Your task to perform on an android device: change alarm snooze length Image 0: 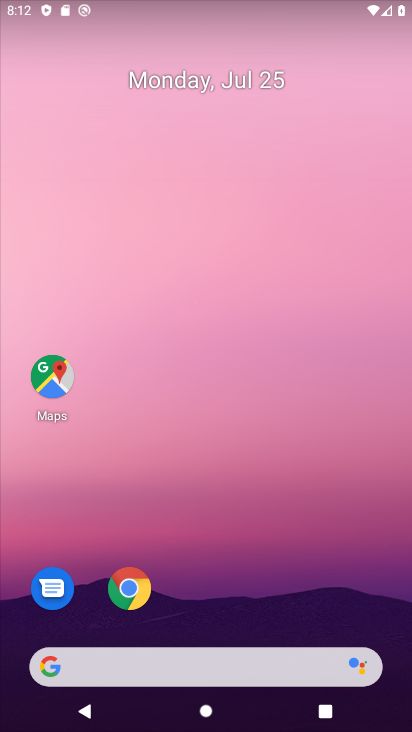
Step 0: drag from (345, 553) to (359, 123)
Your task to perform on an android device: change alarm snooze length Image 1: 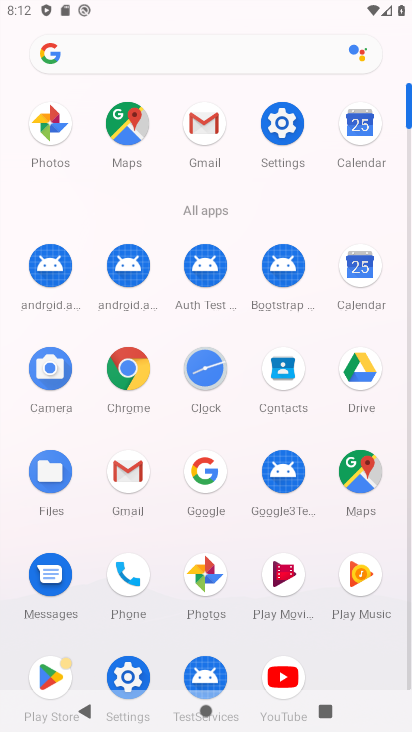
Step 1: click (128, 477)
Your task to perform on an android device: change alarm snooze length Image 2: 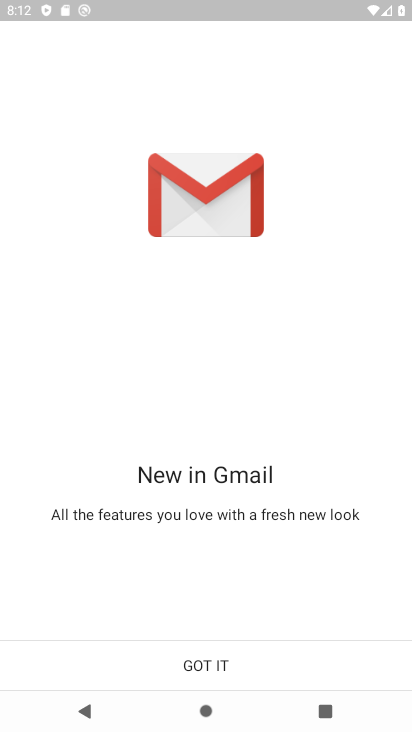
Step 2: press back button
Your task to perform on an android device: change alarm snooze length Image 3: 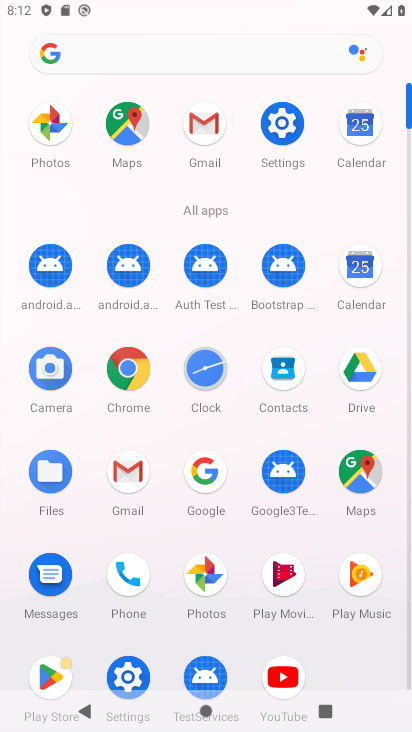
Step 3: click (206, 362)
Your task to perform on an android device: change alarm snooze length Image 4: 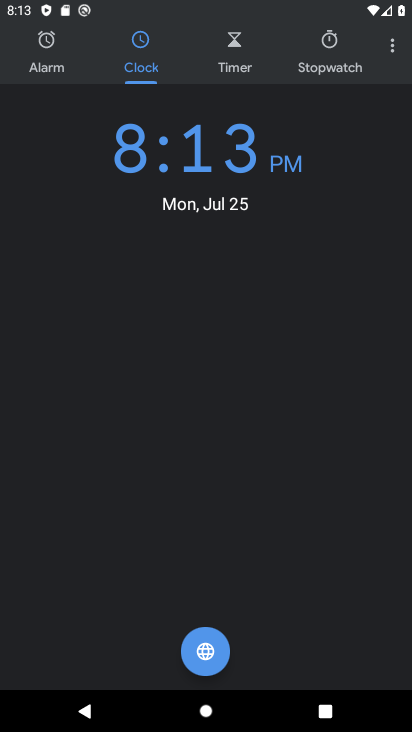
Step 4: click (391, 50)
Your task to perform on an android device: change alarm snooze length Image 5: 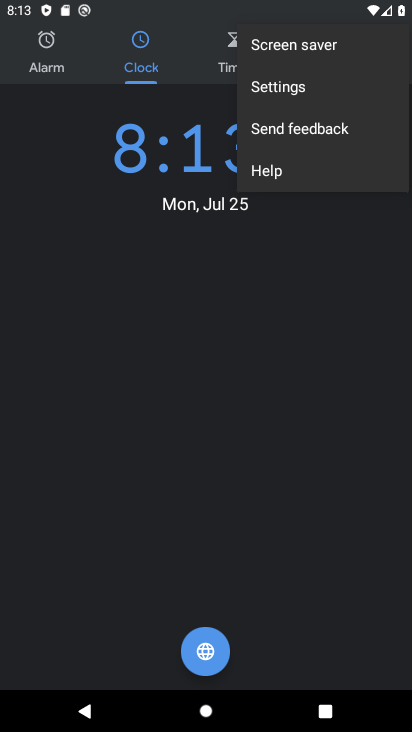
Step 5: click (347, 91)
Your task to perform on an android device: change alarm snooze length Image 6: 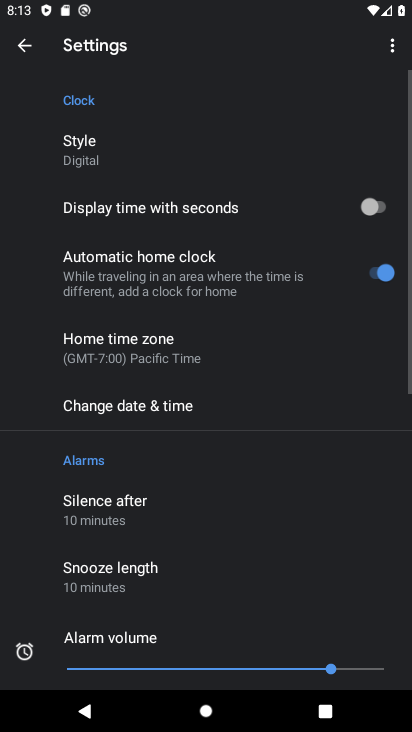
Step 6: drag from (290, 463) to (297, 402)
Your task to perform on an android device: change alarm snooze length Image 7: 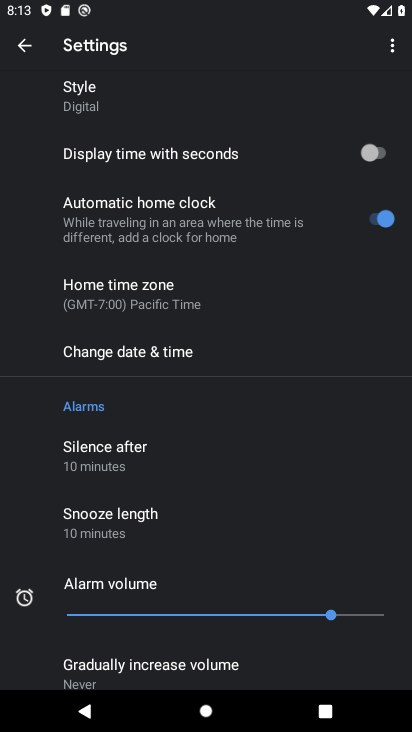
Step 7: drag from (285, 474) to (289, 372)
Your task to perform on an android device: change alarm snooze length Image 8: 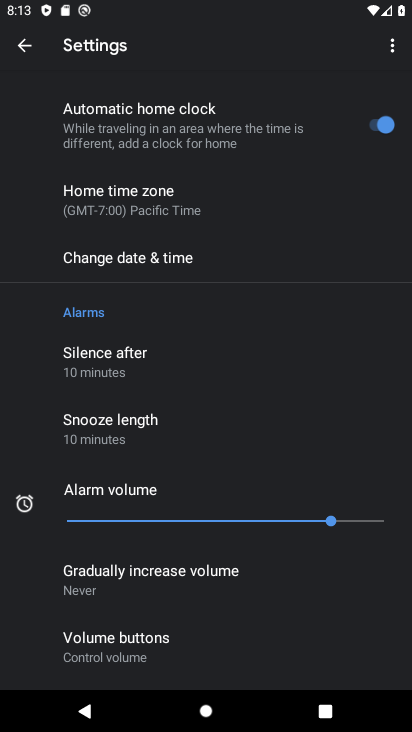
Step 8: drag from (282, 457) to (282, 374)
Your task to perform on an android device: change alarm snooze length Image 9: 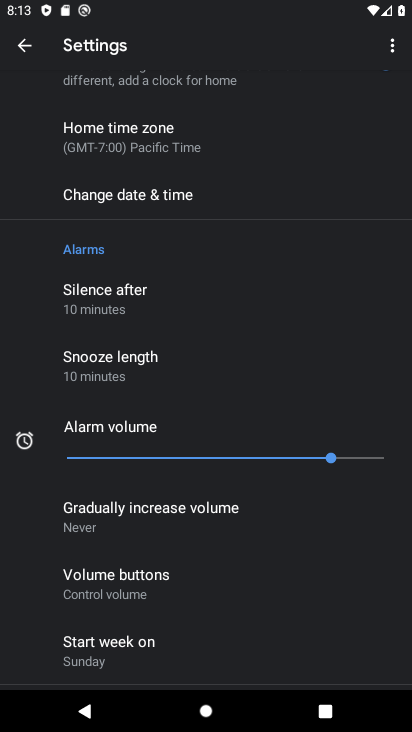
Step 9: drag from (279, 515) to (275, 413)
Your task to perform on an android device: change alarm snooze length Image 10: 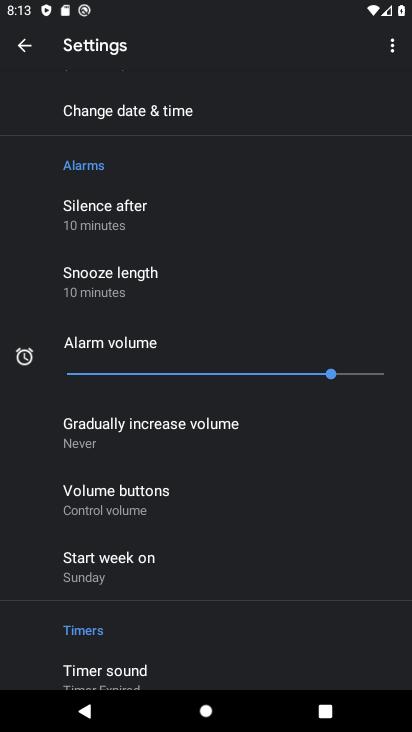
Step 10: drag from (300, 502) to (297, 415)
Your task to perform on an android device: change alarm snooze length Image 11: 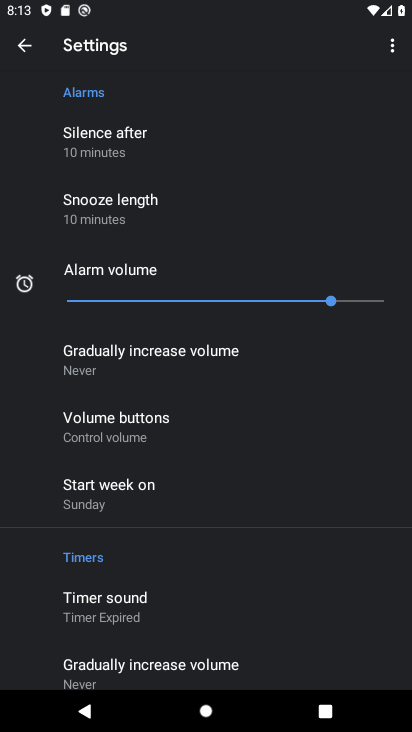
Step 11: drag from (297, 503) to (297, 419)
Your task to perform on an android device: change alarm snooze length Image 12: 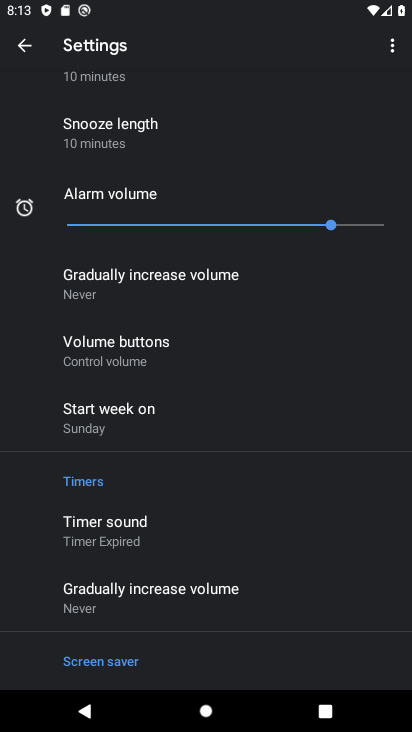
Step 12: drag from (311, 479) to (308, 400)
Your task to perform on an android device: change alarm snooze length Image 13: 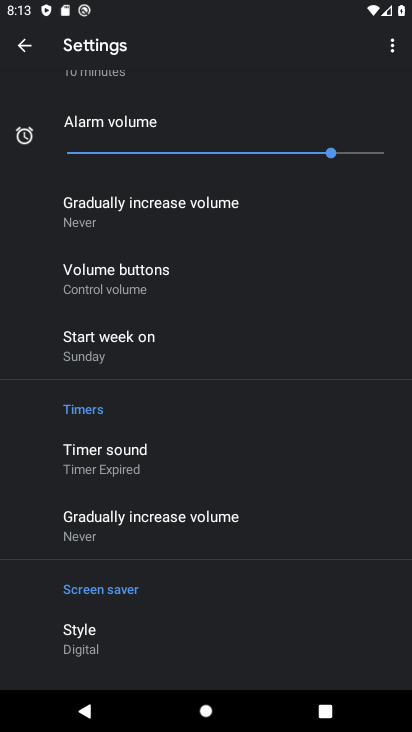
Step 13: drag from (331, 548) to (326, 431)
Your task to perform on an android device: change alarm snooze length Image 14: 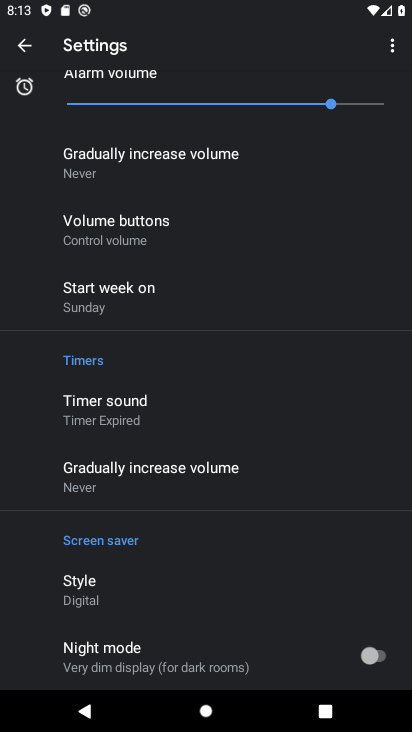
Step 14: drag from (325, 524) to (330, 459)
Your task to perform on an android device: change alarm snooze length Image 15: 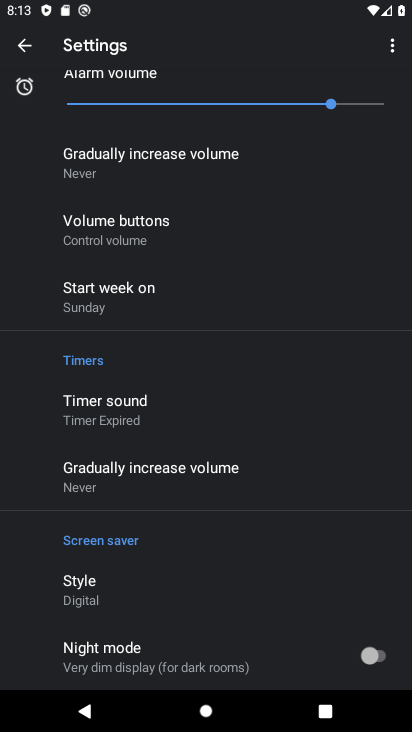
Step 15: drag from (265, 257) to (265, 337)
Your task to perform on an android device: change alarm snooze length Image 16: 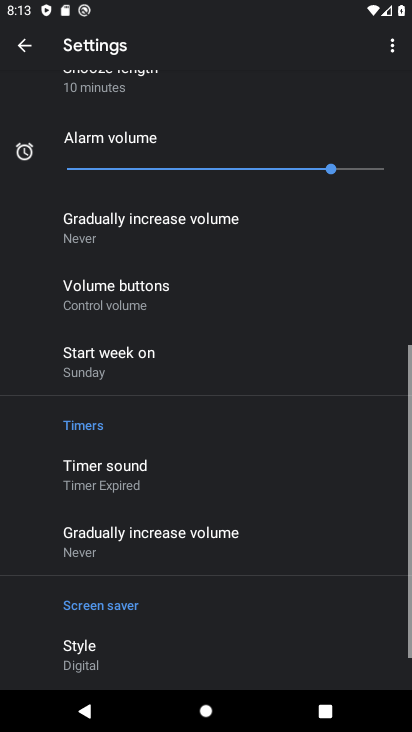
Step 16: drag from (283, 436) to (287, 263)
Your task to perform on an android device: change alarm snooze length Image 17: 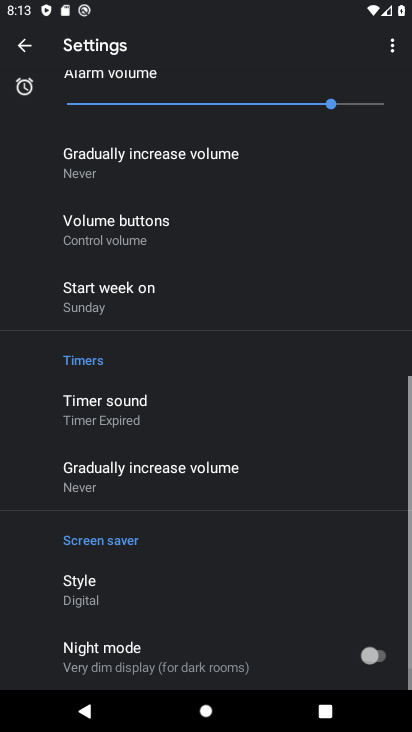
Step 17: drag from (287, 261) to (287, 355)
Your task to perform on an android device: change alarm snooze length Image 18: 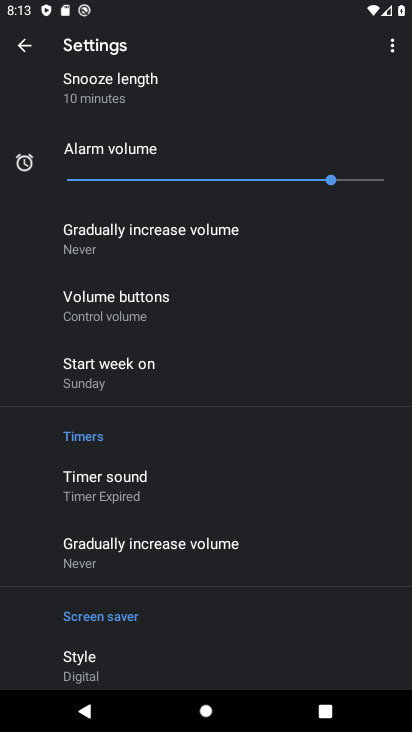
Step 18: drag from (284, 234) to (287, 357)
Your task to perform on an android device: change alarm snooze length Image 19: 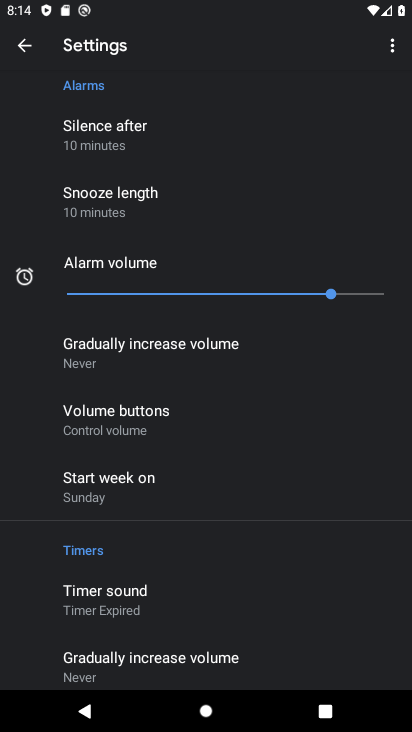
Step 19: drag from (248, 204) to (251, 338)
Your task to perform on an android device: change alarm snooze length Image 20: 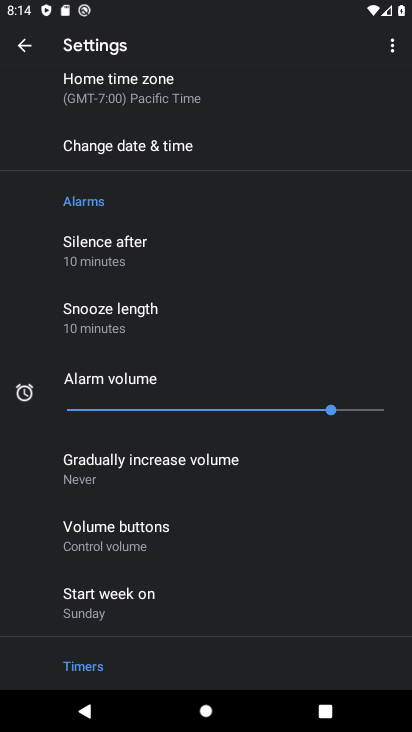
Step 20: drag from (252, 218) to (255, 320)
Your task to perform on an android device: change alarm snooze length Image 21: 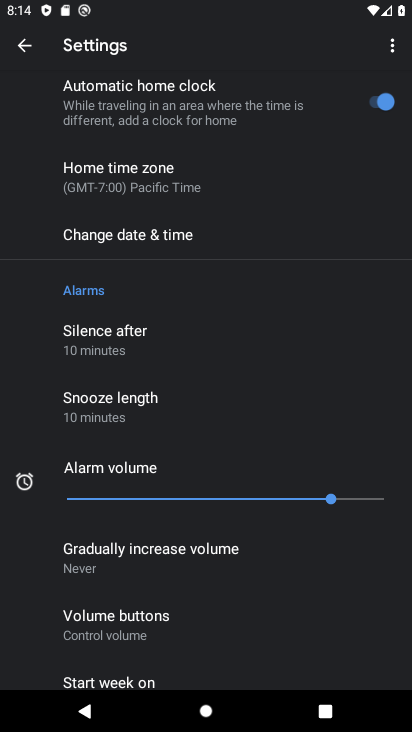
Step 21: click (214, 405)
Your task to perform on an android device: change alarm snooze length Image 22: 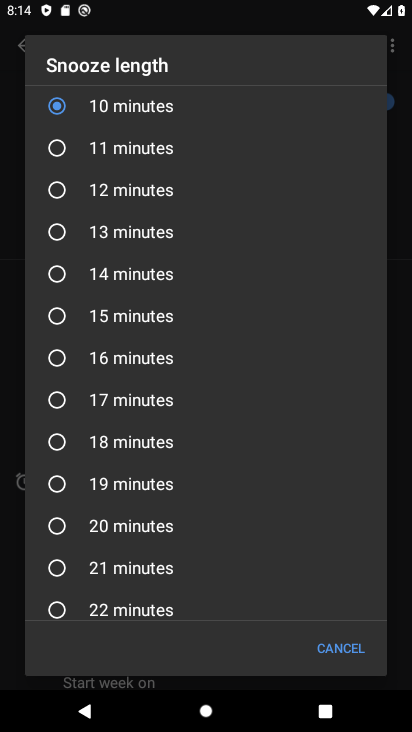
Step 22: drag from (266, 491) to (266, 407)
Your task to perform on an android device: change alarm snooze length Image 23: 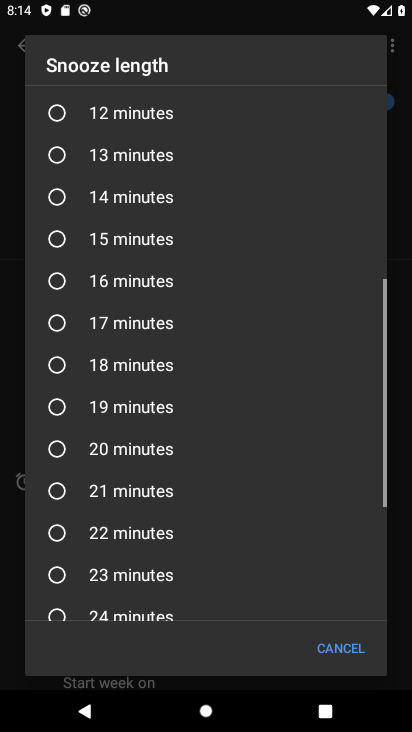
Step 23: drag from (259, 474) to (256, 404)
Your task to perform on an android device: change alarm snooze length Image 24: 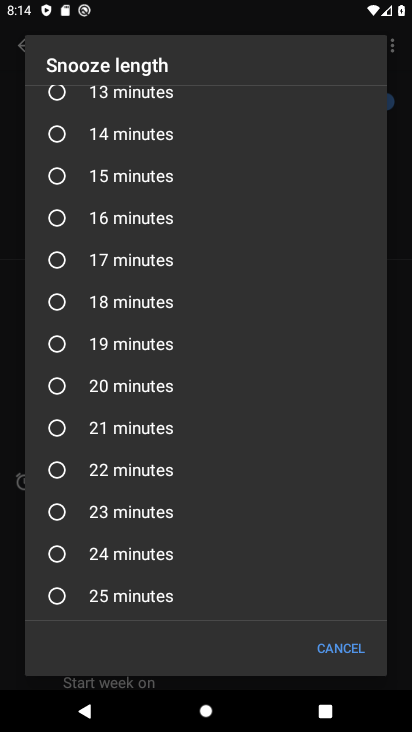
Step 24: drag from (234, 471) to (216, 379)
Your task to perform on an android device: change alarm snooze length Image 25: 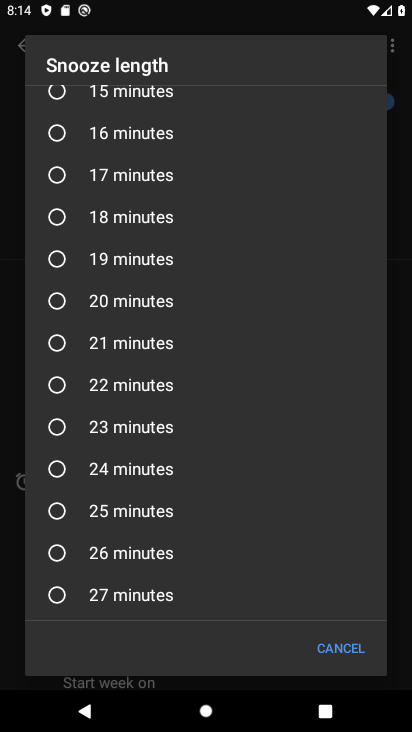
Step 25: drag from (293, 524) to (290, 404)
Your task to perform on an android device: change alarm snooze length Image 26: 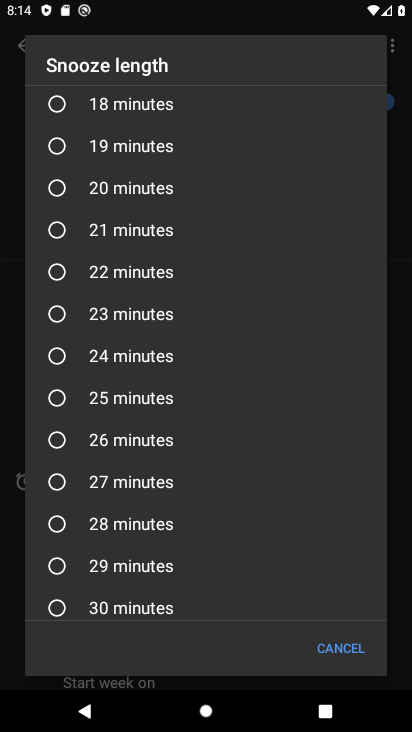
Step 26: drag from (277, 449) to (270, 337)
Your task to perform on an android device: change alarm snooze length Image 27: 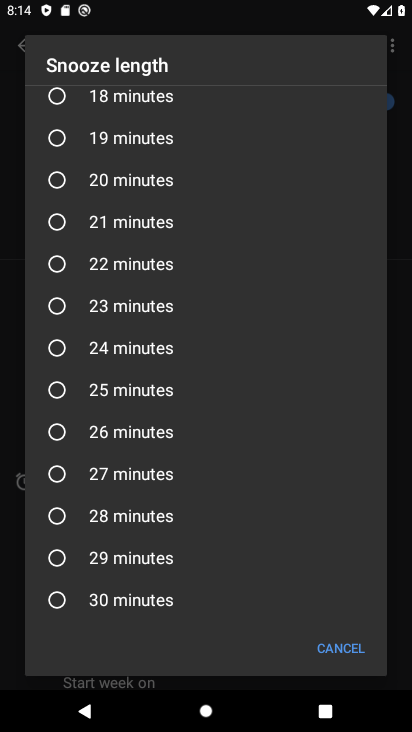
Step 27: click (166, 472)
Your task to perform on an android device: change alarm snooze length Image 28: 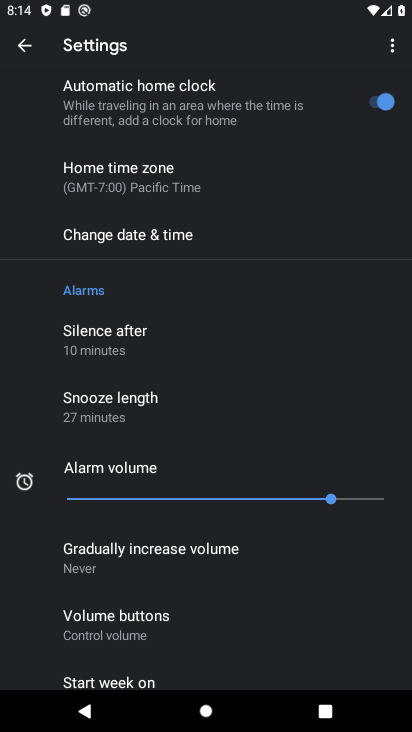
Step 28: task complete